Your task to perform on an android device: Search for sushi restaurants on Maps Image 0: 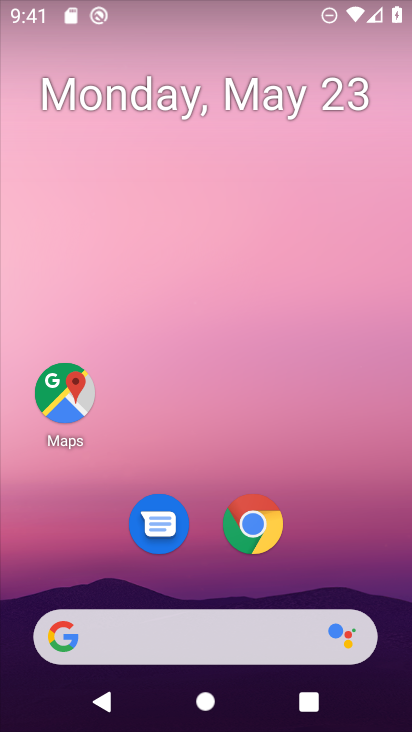
Step 0: click (77, 396)
Your task to perform on an android device: Search for sushi restaurants on Maps Image 1: 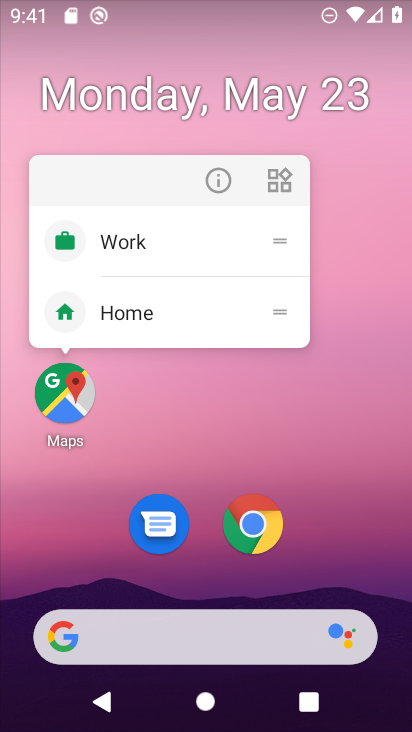
Step 1: click (67, 401)
Your task to perform on an android device: Search for sushi restaurants on Maps Image 2: 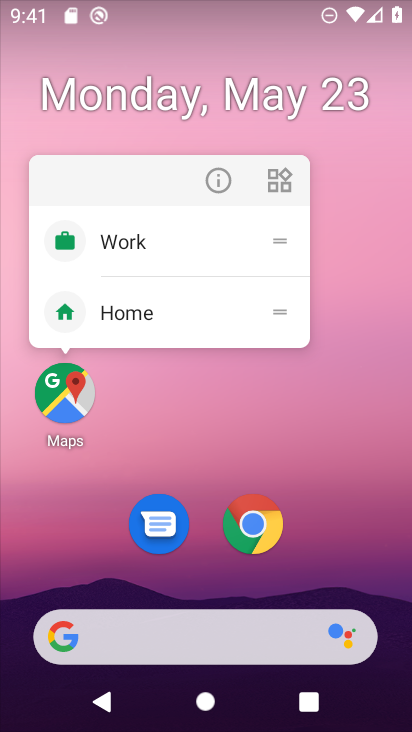
Step 2: click (67, 401)
Your task to perform on an android device: Search for sushi restaurants on Maps Image 3: 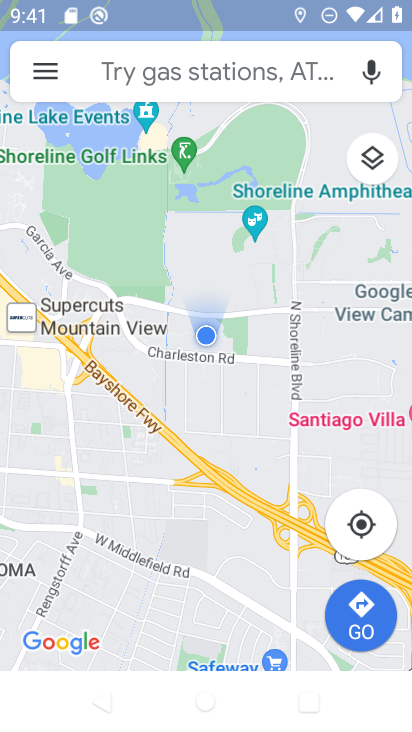
Step 3: click (214, 64)
Your task to perform on an android device: Search for sushi restaurants on Maps Image 4: 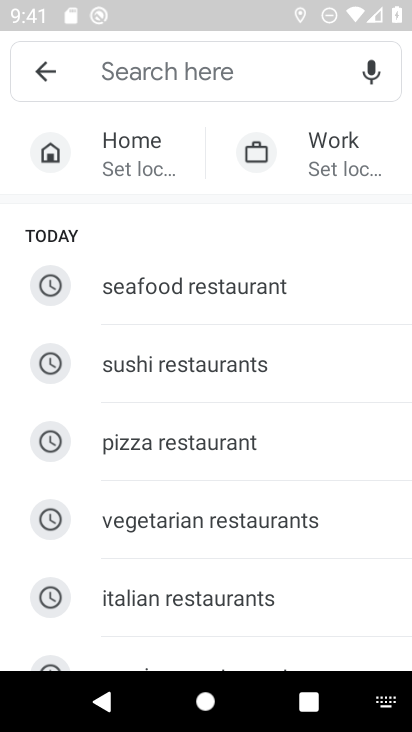
Step 4: click (211, 362)
Your task to perform on an android device: Search for sushi restaurants on Maps Image 5: 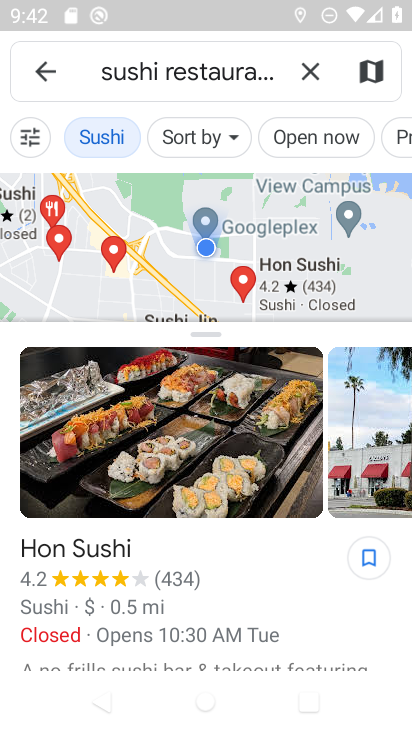
Step 5: task complete